Your task to perform on an android device: change alarm snooze length Image 0: 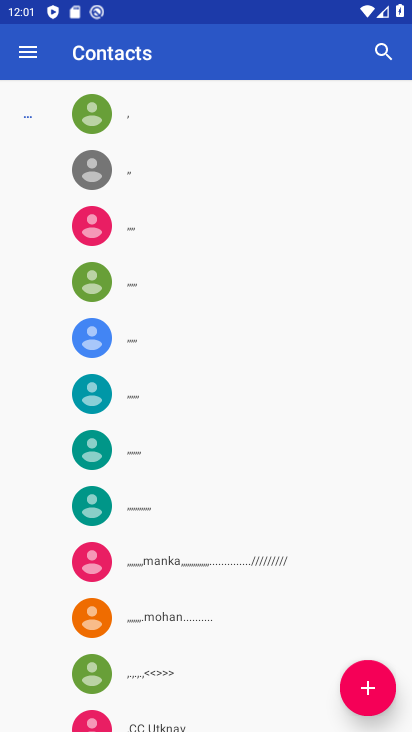
Step 0: press home button
Your task to perform on an android device: change alarm snooze length Image 1: 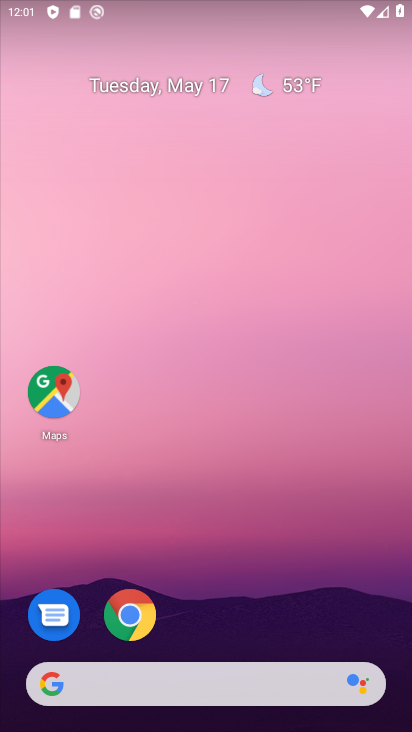
Step 1: drag from (291, 590) to (326, 58)
Your task to perform on an android device: change alarm snooze length Image 2: 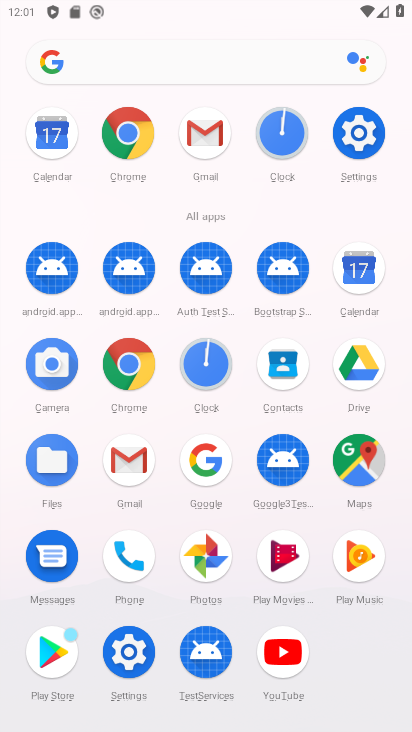
Step 2: click (300, 141)
Your task to perform on an android device: change alarm snooze length Image 3: 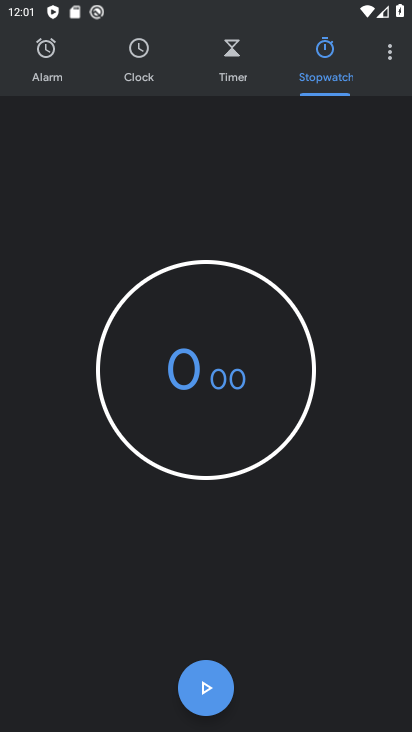
Step 3: click (383, 61)
Your task to perform on an android device: change alarm snooze length Image 4: 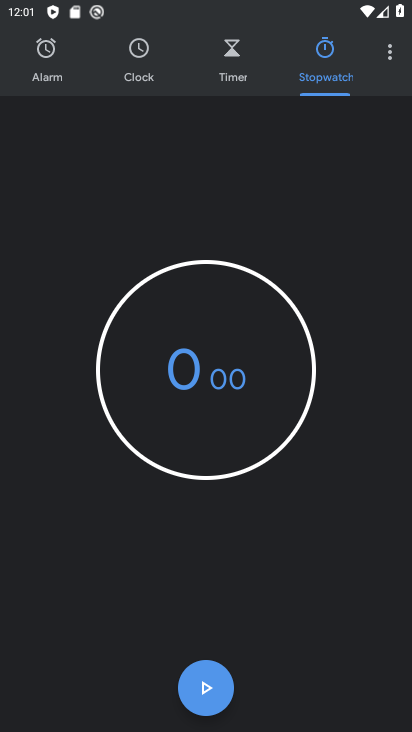
Step 4: click (395, 68)
Your task to perform on an android device: change alarm snooze length Image 5: 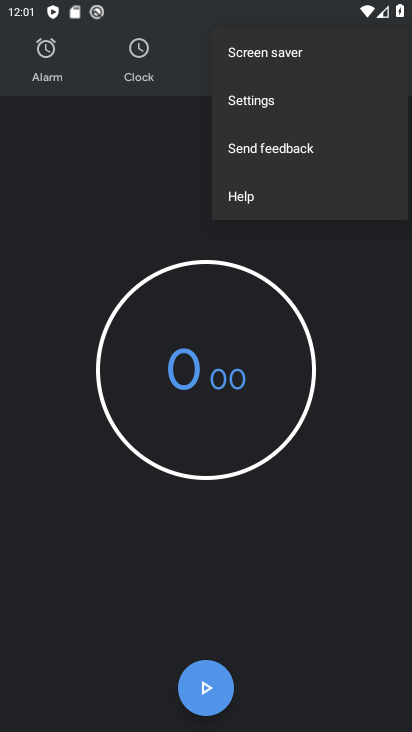
Step 5: click (298, 91)
Your task to perform on an android device: change alarm snooze length Image 6: 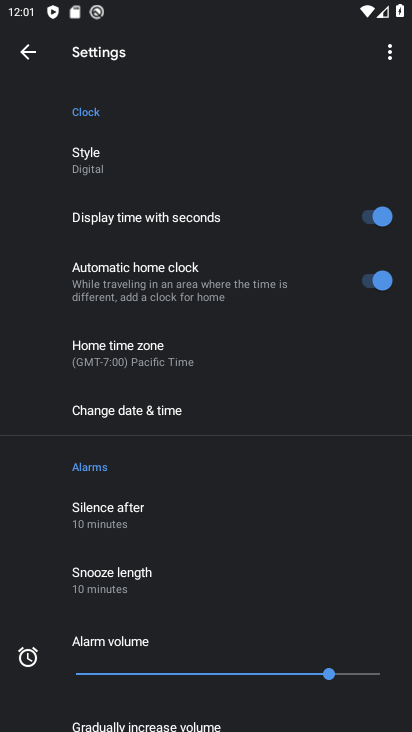
Step 6: click (166, 568)
Your task to perform on an android device: change alarm snooze length Image 7: 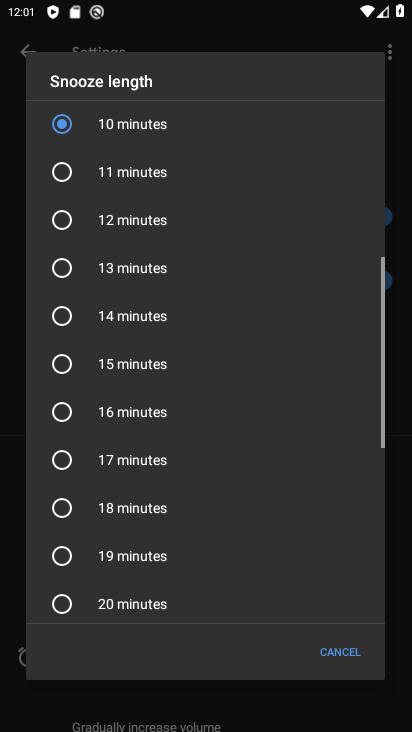
Step 7: click (176, 490)
Your task to perform on an android device: change alarm snooze length Image 8: 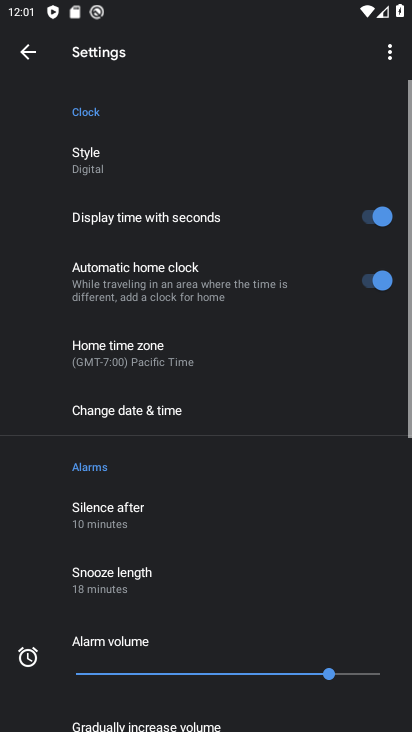
Step 8: task complete